Your task to perform on an android device: open app "Move to iOS" (install if not already installed) and go to login screen Image 0: 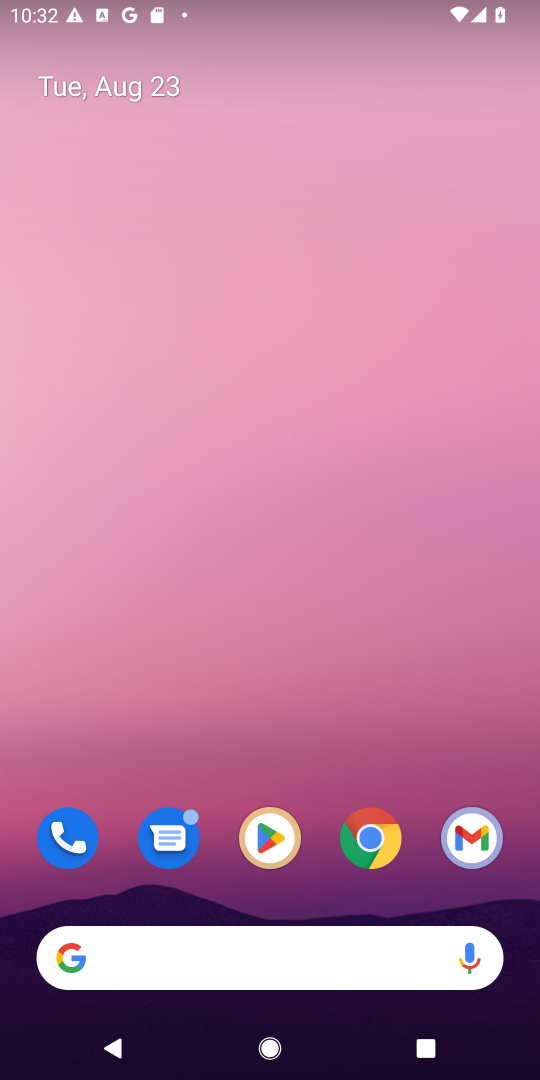
Step 0: click (247, 851)
Your task to perform on an android device: open app "Move to iOS" (install if not already installed) and go to login screen Image 1: 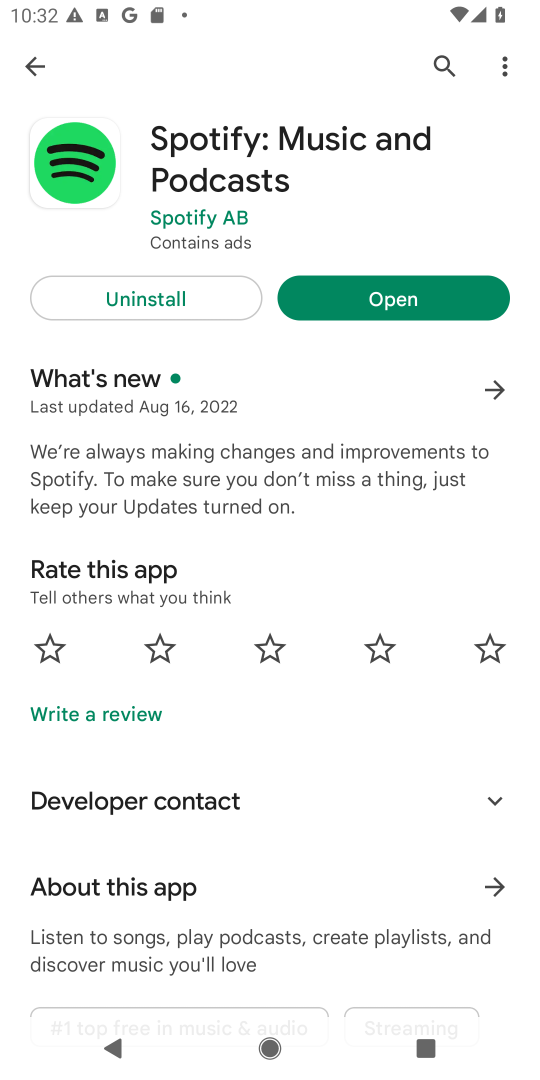
Step 1: click (451, 62)
Your task to perform on an android device: open app "Move to iOS" (install if not already installed) and go to login screen Image 2: 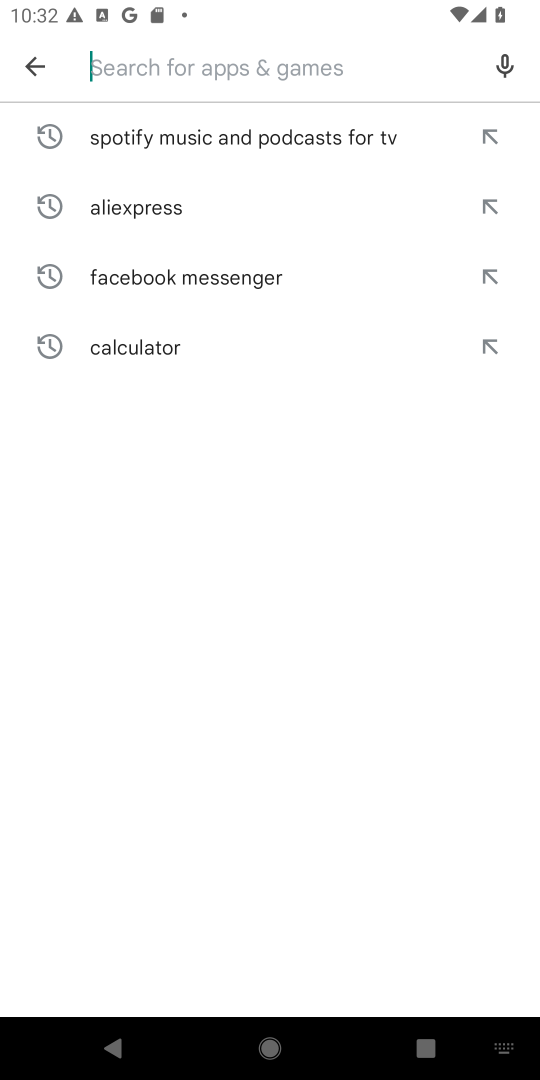
Step 2: type "Move to iOS"
Your task to perform on an android device: open app "Move to iOS" (install if not already installed) and go to login screen Image 3: 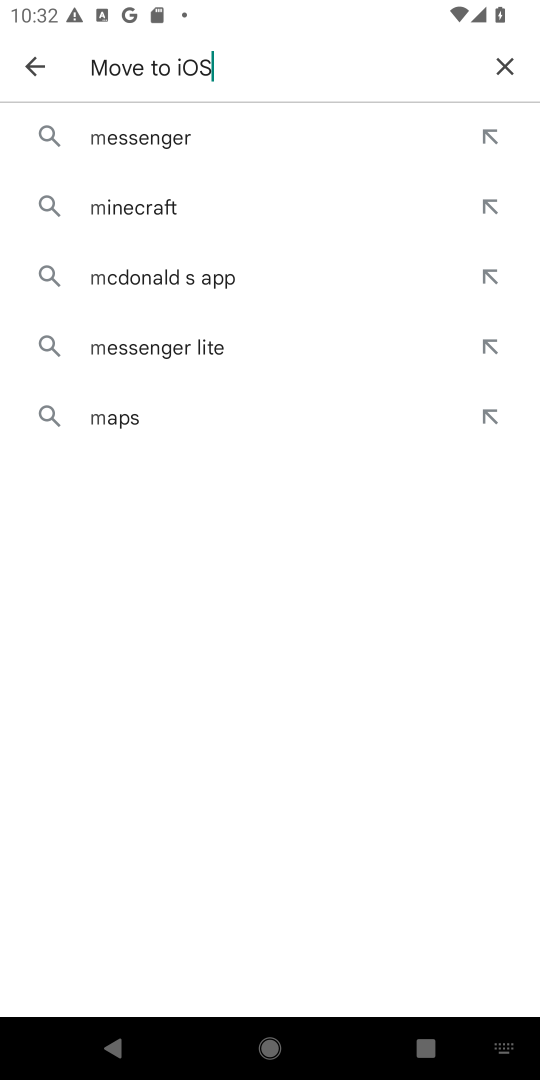
Step 3: type ""
Your task to perform on an android device: open app "Move to iOS" (install if not already installed) and go to login screen Image 4: 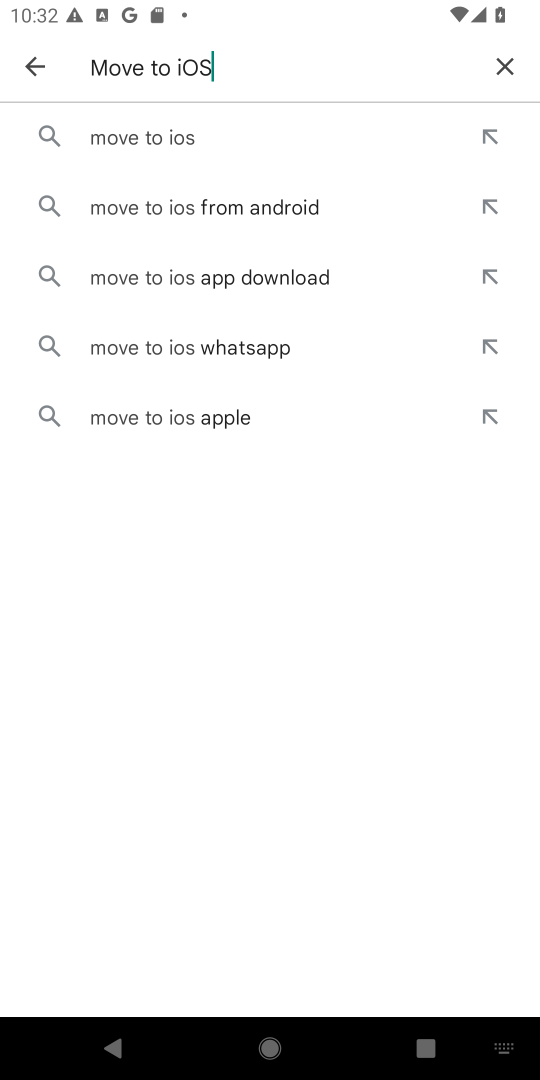
Step 4: click (148, 136)
Your task to perform on an android device: open app "Move to iOS" (install if not already installed) and go to login screen Image 5: 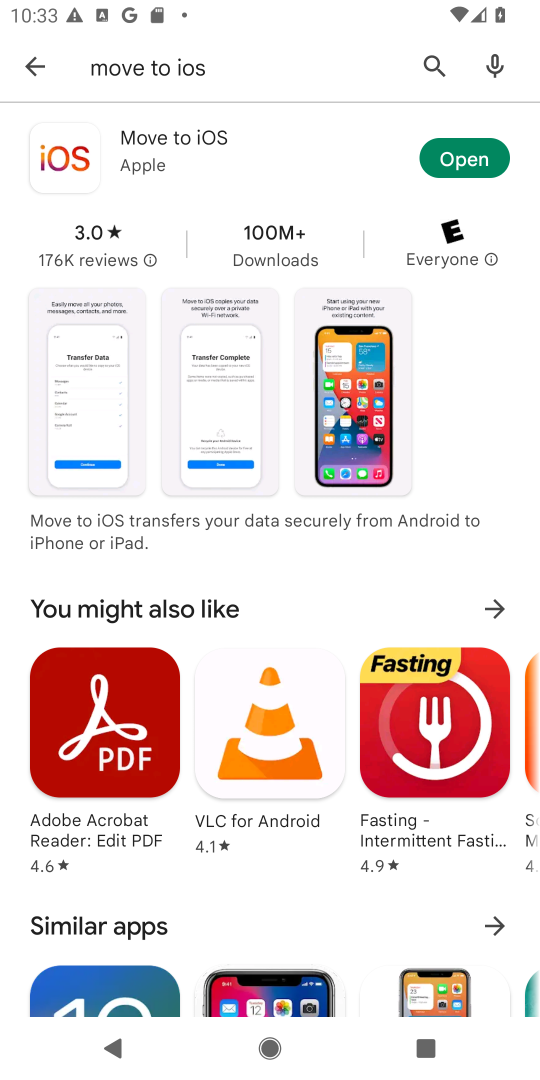
Step 5: click (451, 169)
Your task to perform on an android device: open app "Move to iOS" (install if not already installed) and go to login screen Image 6: 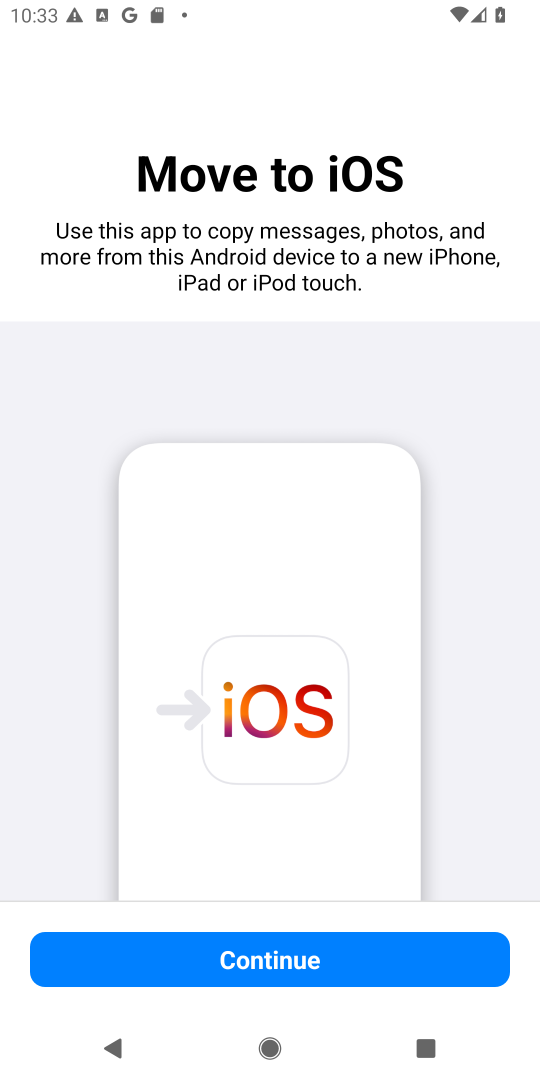
Step 6: task complete